Your task to perform on an android device: turn on location history Image 0: 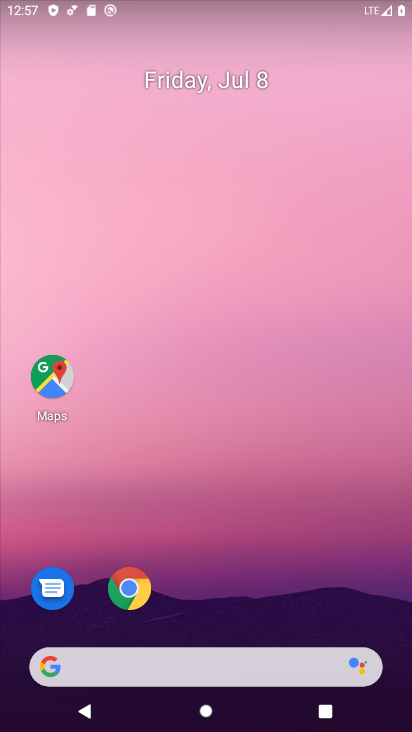
Step 0: drag from (251, 428) to (365, 12)
Your task to perform on an android device: turn on location history Image 1: 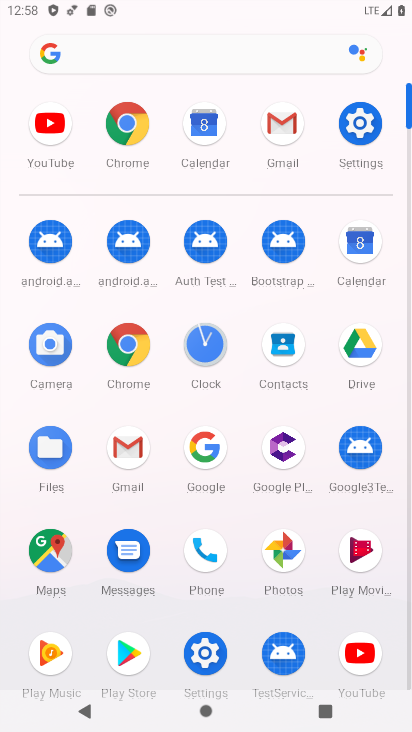
Step 1: click (364, 142)
Your task to perform on an android device: turn on location history Image 2: 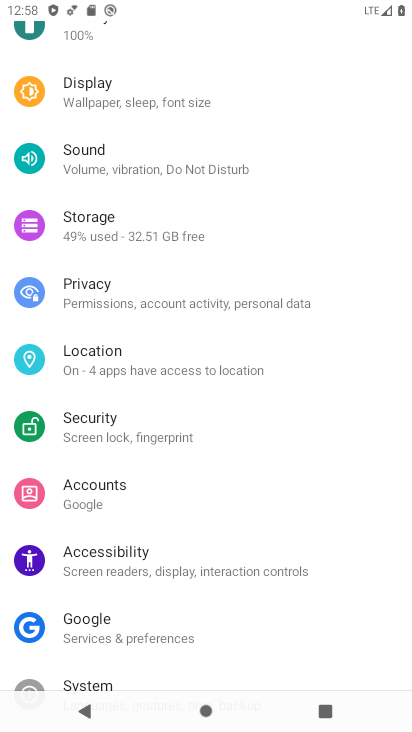
Step 2: click (171, 360)
Your task to perform on an android device: turn on location history Image 3: 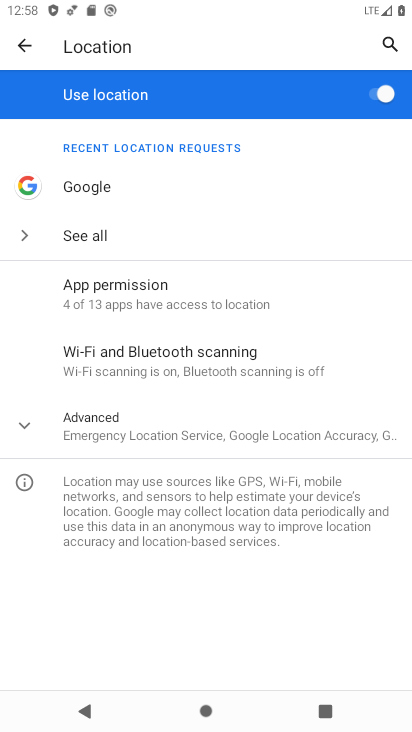
Step 3: click (160, 436)
Your task to perform on an android device: turn on location history Image 4: 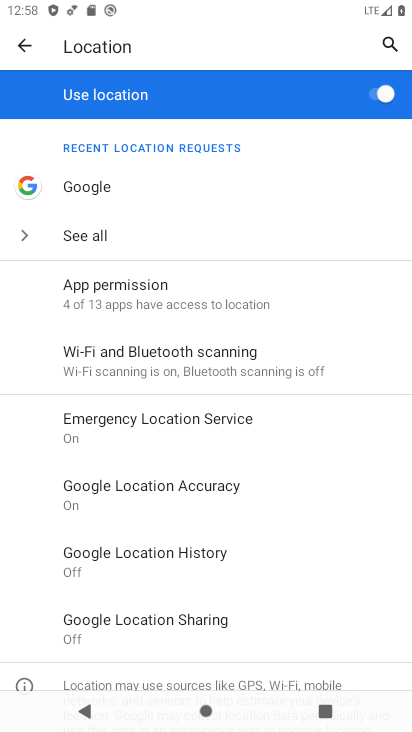
Step 4: click (156, 553)
Your task to perform on an android device: turn on location history Image 5: 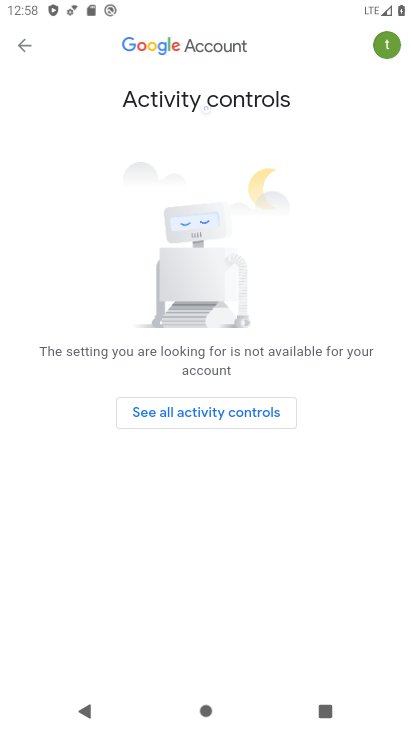
Step 5: click (217, 418)
Your task to perform on an android device: turn on location history Image 6: 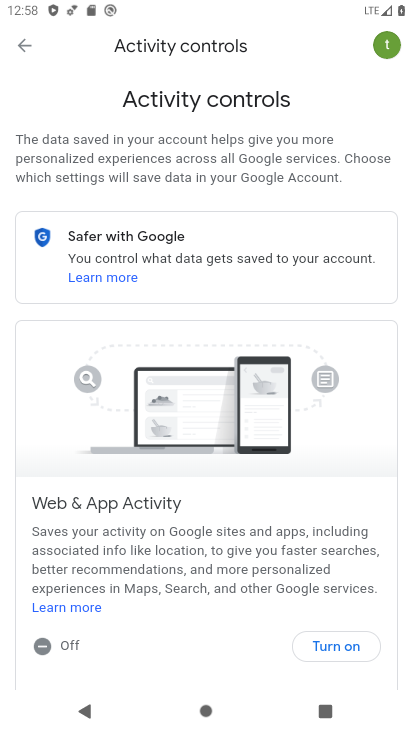
Step 6: click (330, 642)
Your task to perform on an android device: turn on location history Image 7: 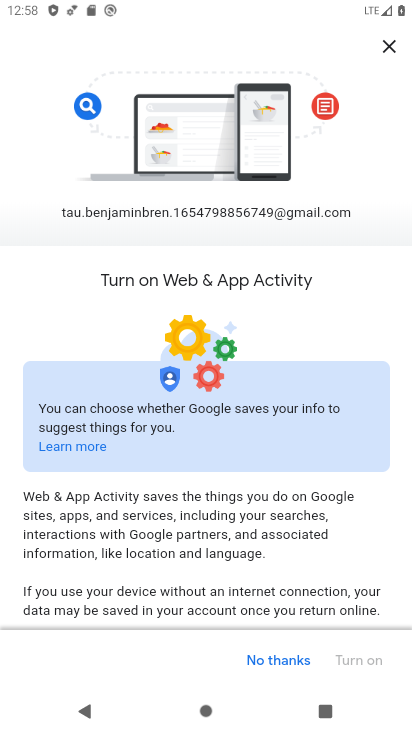
Step 7: drag from (334, 614) to (287, 27)
Your task to perform on an android device: turn on location history Image 8: 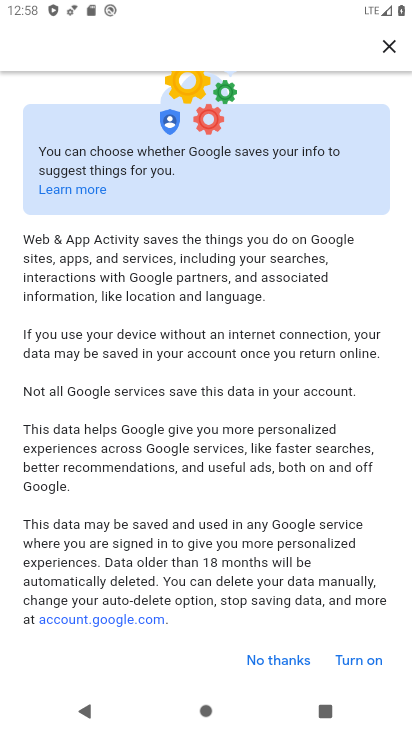
Step 8: click (356, 665)
Your task to perform on an android device: turn on location history Image 9: 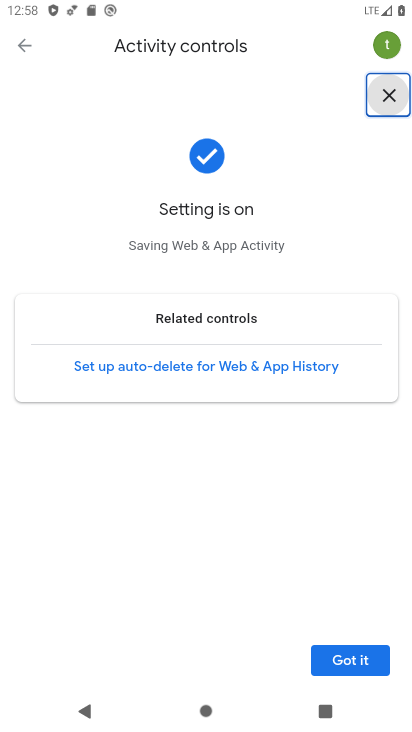
Step 9: click (357, 663)
Your task to perform on an android device: turn on location history Image 10: 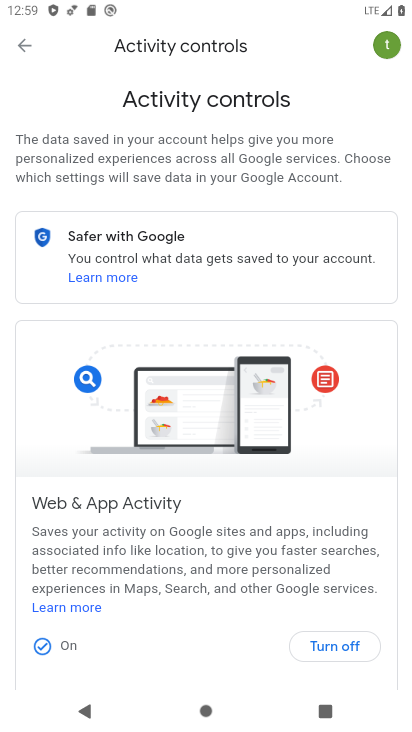
Step 10: task complete